Your task to perform on an android device: Go to eBay Image 0: 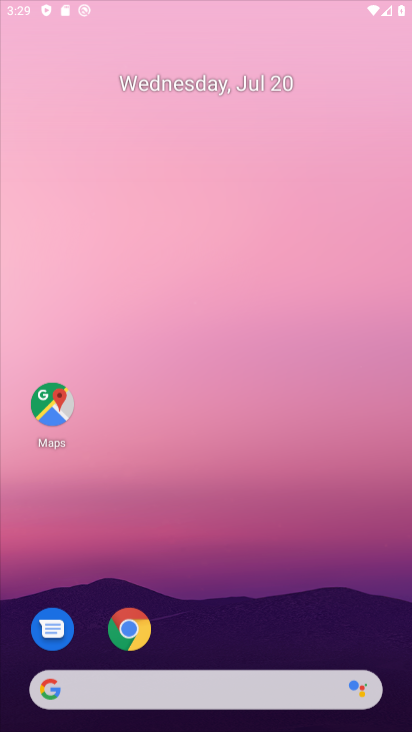
Step 0: press home button
Your task to perform on an android device: Go to eBay Image 1: 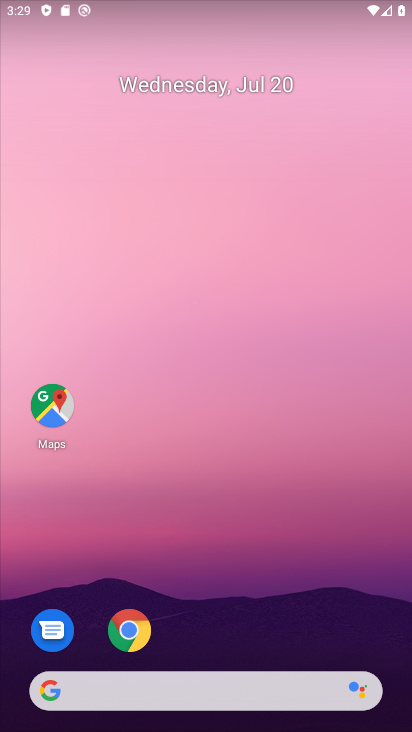
Step 1: click (51, 701)
Your task to perform on an android device: Go to eBay Image 2: 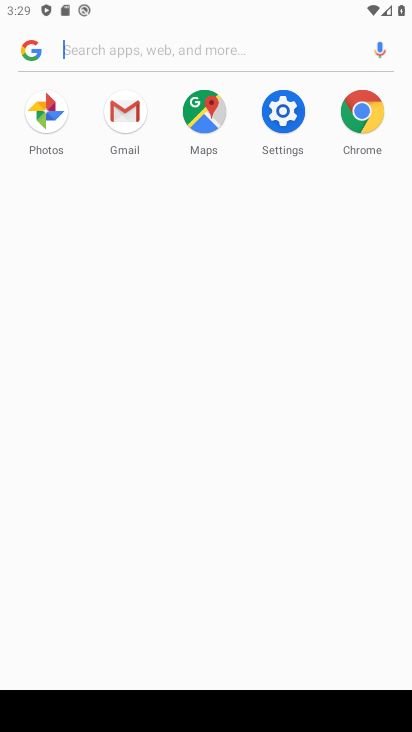
Step 2: type "eBay"
Your task to perform on an android device: Go to eBay Image 3: 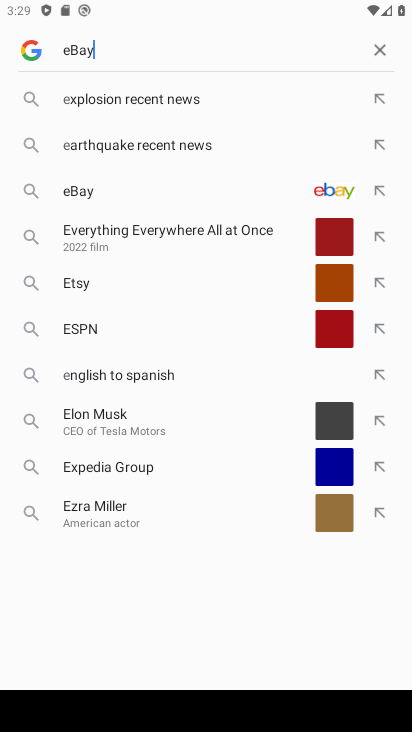
Step 3: press enter
Your task to perform on an android device: Go to eBay Image 4: 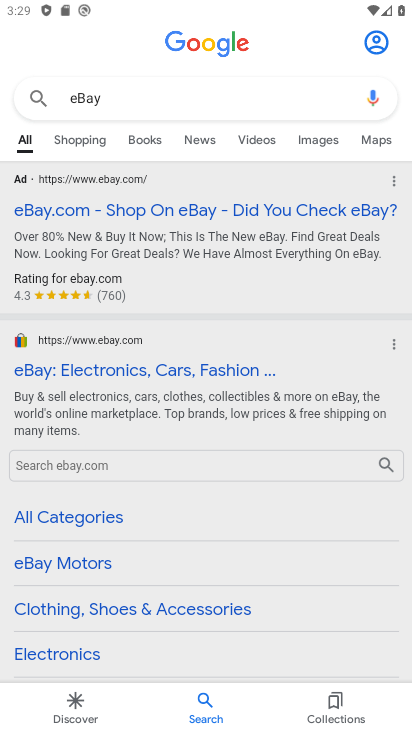
Step 4: click (123, 219)
Your task to perform on an android device: Go to eBay Image 5: 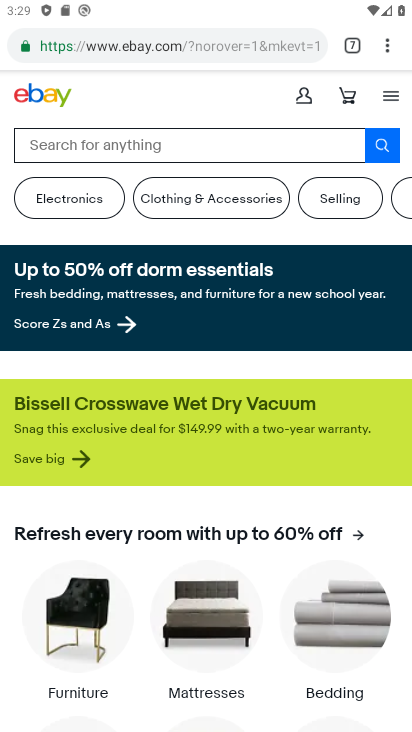
Step 5: task complete